Your task to perform on an android device: Open notification settings Image 0: 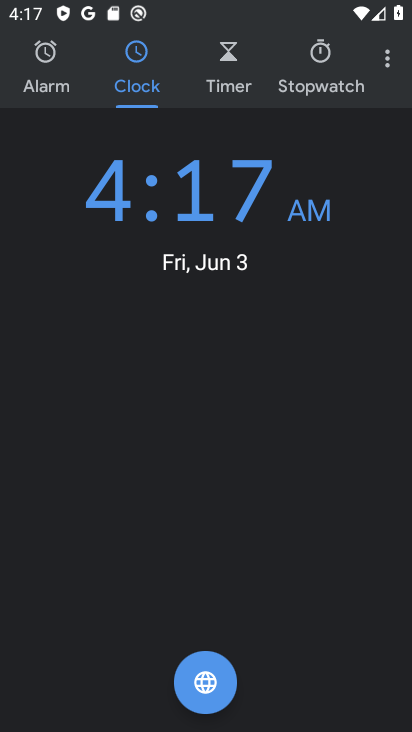
Step 0: press home button
Your task to perform on an android device: Open notification settings Image 1: 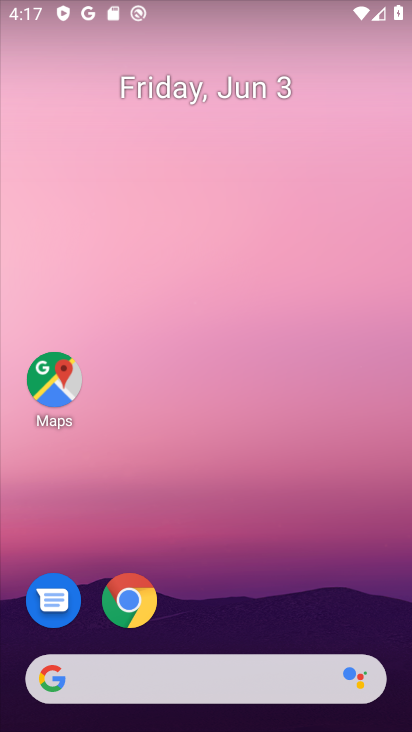
Step 1: drag from (395, 701) to (334, 128)
Your task to perform on an android device: Open notification settings Image 2: 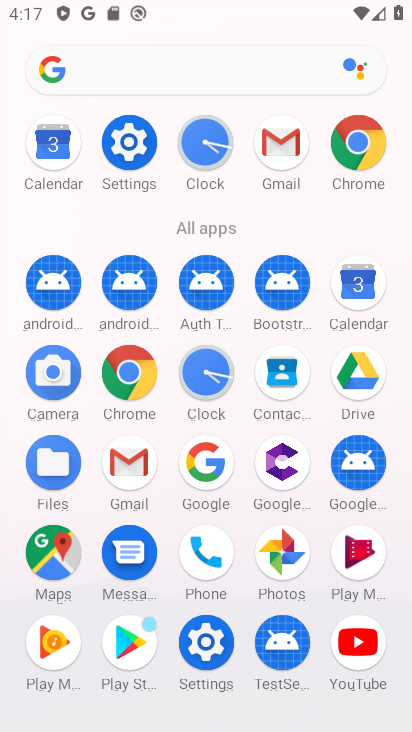
Step 2: click (207, 639)
Your task to perform on an android device: Open notification settings Image 3: 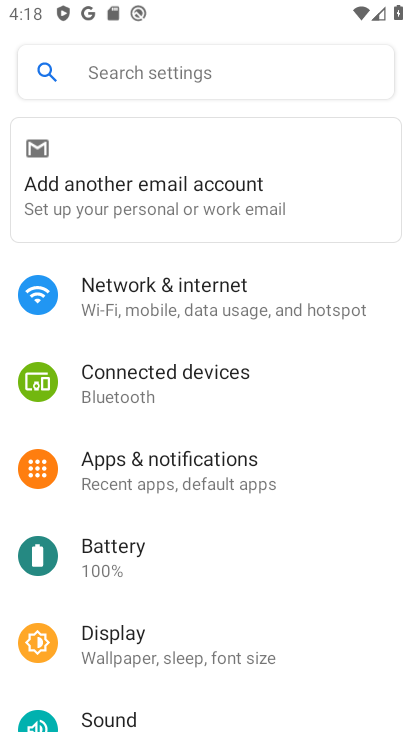
Step 3: click (195, 466)
Your task to perform on an android device: Open notification settings Image 4: 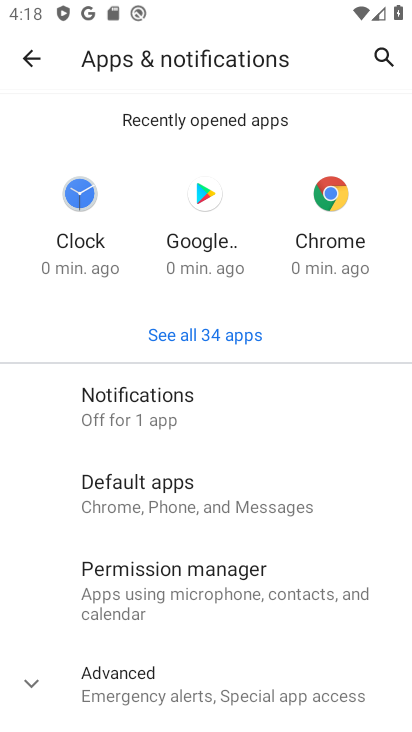
Step 4: click (151, 396)
Your task to perform on an android device: Open notification settings Image 5: 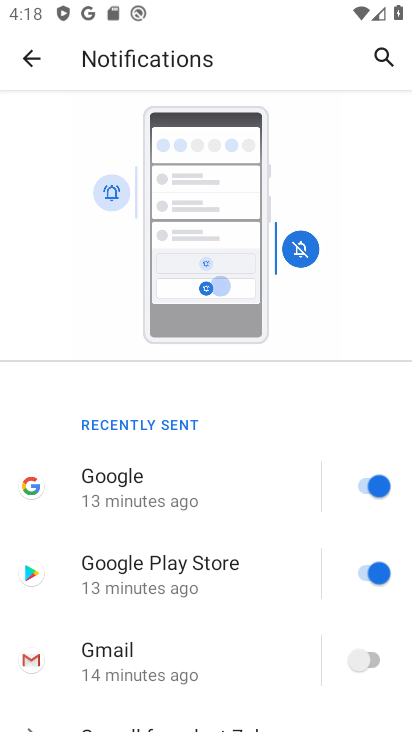
Step 5: drag from (273, 638) to (270, 337)
Your task to perform on an android device: Open notification settings Image 6: 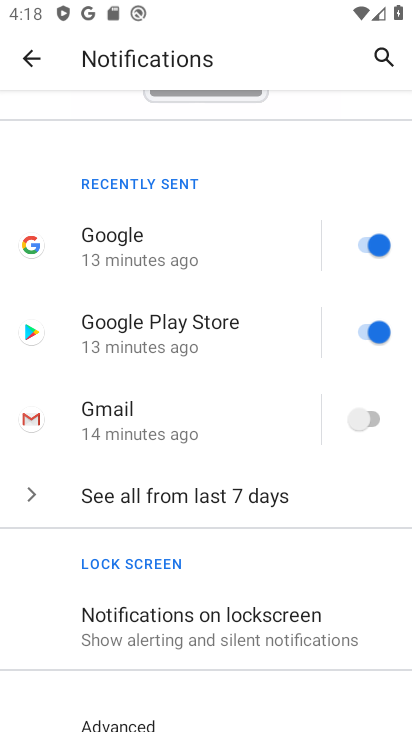
Step 6: drag from (160, 638) to (148, 225)
Your task to perform on an android device: Open notification settings Image 7: 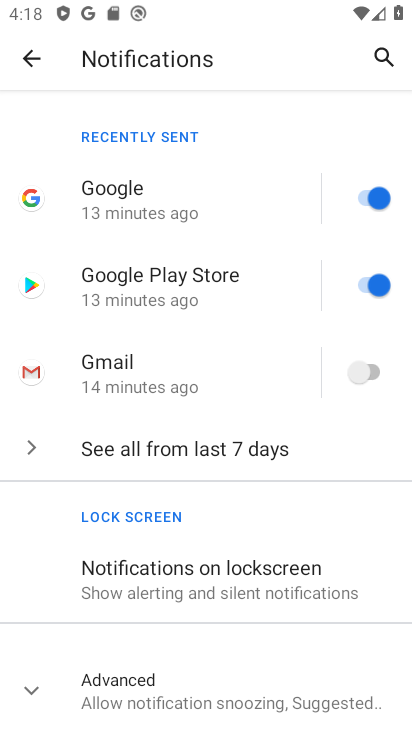
Step 7: click (29, 690)
Your task to perform on an android device: Open notification settings Image 8: 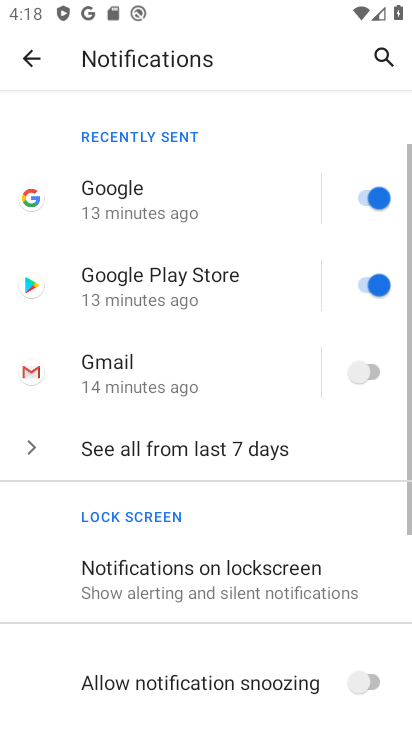
Step 8: task complete